Your task to perform on an android device: open a bookmark in the chrome app Image 0: 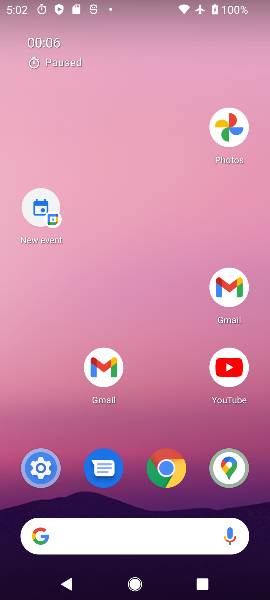
Step 0: drag from (142, 544) to (125, 200)
Your task to perform on an android device: open a bookmark in the chrome app Image 1: 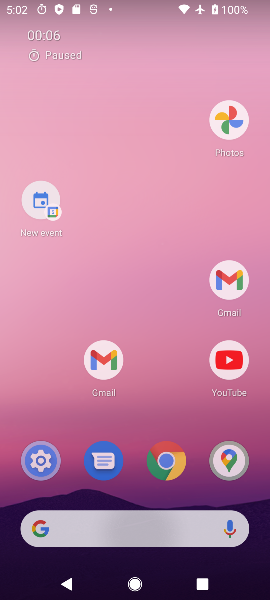
Step 1: drag from (158, 405) to (129, 136)
Your task to perform on an android device: open a bookmark in the chrome app Image 2: 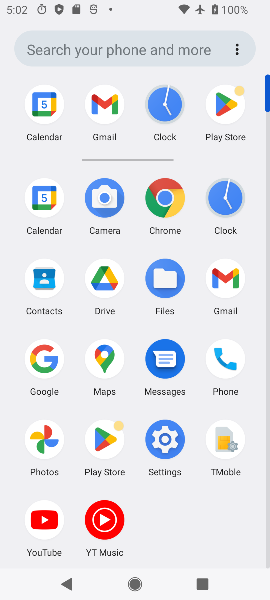
Step 2: drag from (121, 325) to (111, 153)
Your task to perform on an android device: open a bookmark in the chrome app Image 3: 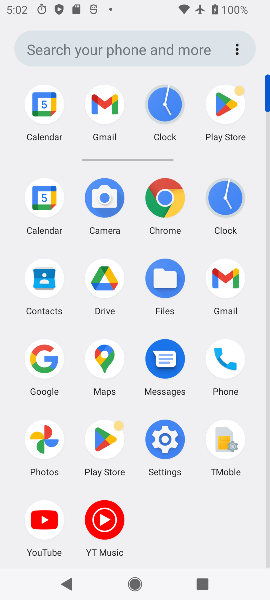
Step 3: click (160, 199)
Your task to perform on an android device: open a bookmark in the chrome app Image 4: 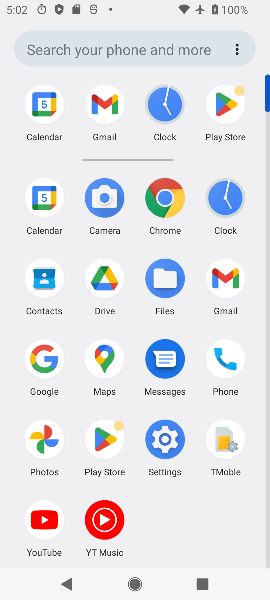
Step 4: click (160, 199)
Your task to perform on an android device: open a bookmark in the chrome app Image 5: 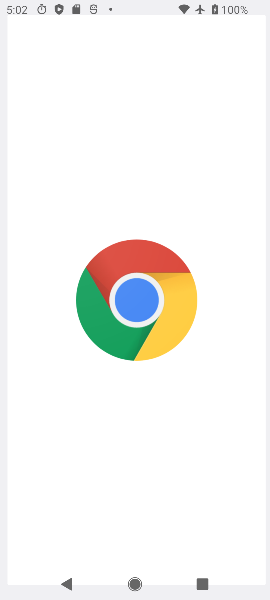
Step 5: click (160, 199)
Your task to perform on an android device: open a bookmark in the chrome app Image 6: 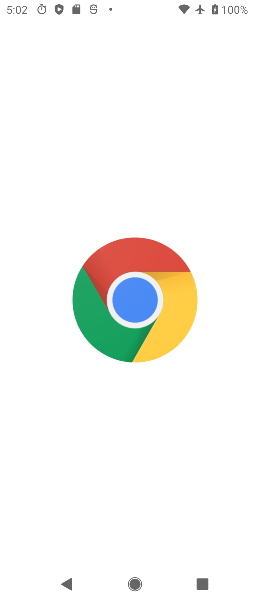
Step 6: click (160, 199)
Your task to perform on an android device: open a bookmark in the chrome app Image 7: 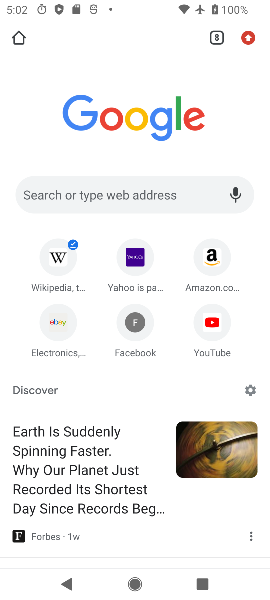
Step 7: click (246, 39)
Your task to perform on an android device: open a bookmark in the chrome app Image 8: 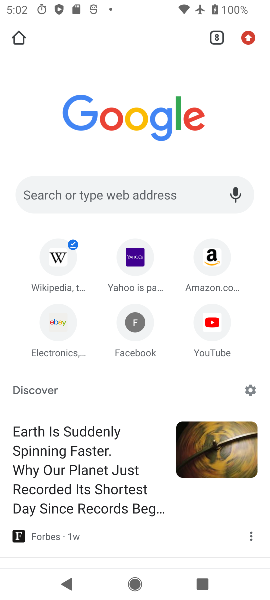
Step 8: click (246, 39)
Your task to perform on an android device: open a bookmark in the chrome app Image 9: 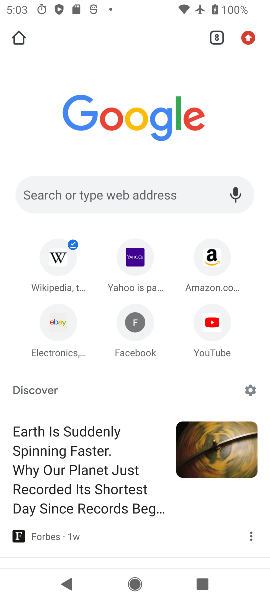
Step 9: click (245, 39)
Your task to perform on an android device: open a bookmark in the chrome app Image 10: 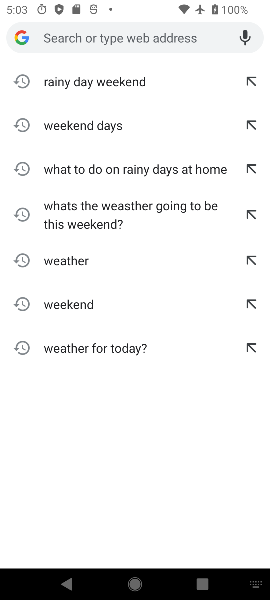
Step 10: click (251, 78)
Your task to perform on an android device: open a bookmark in the chrome app Image 11: 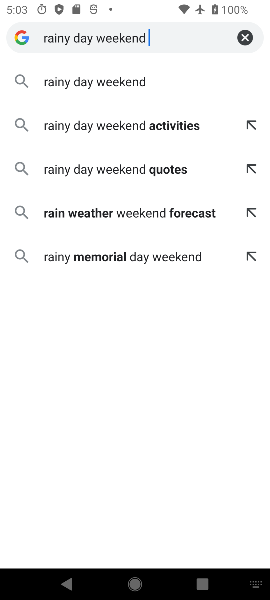
Step 11: click (242, 31)
Your task to perform on an android device: open a bookmark in the chrome app Image 12: 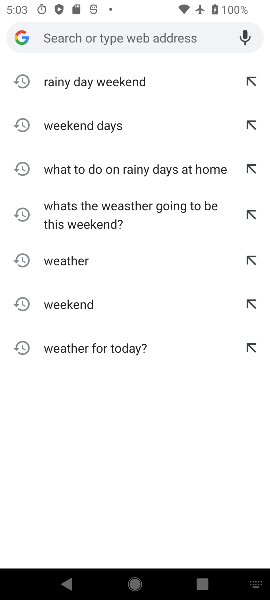
Step 12: task complete